Your task to perform on an android device: move an email to a new category in the gmail app Image 0: 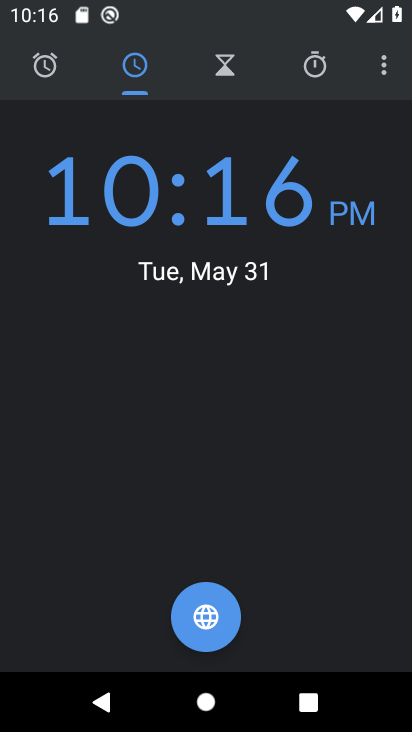
Step 0: press home button
Your task to perform on an android device: move an email to a new category in the gmail app Image 1: 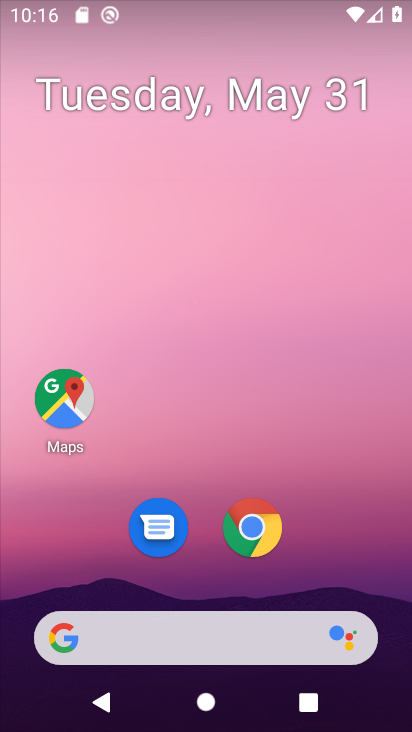
Step 1: drag from (303, 478) to (207, 82)
Your task to perform on an android device: move an email to a new category in the gmail app Image 2: 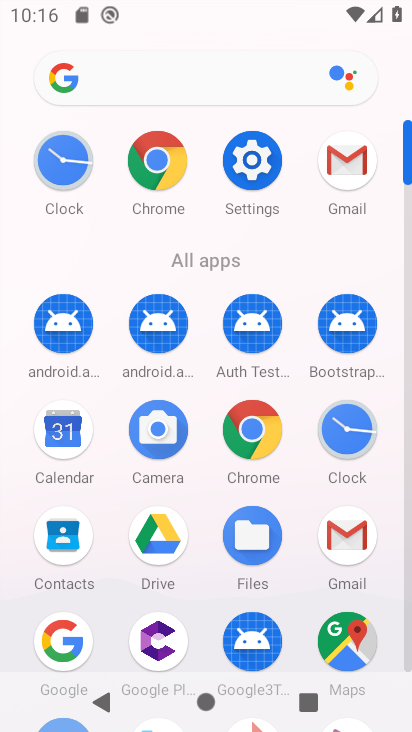
Step 2: click (353, 549)
Your task to perform on an android device: move an email to a new category in the gmail app Image 3: 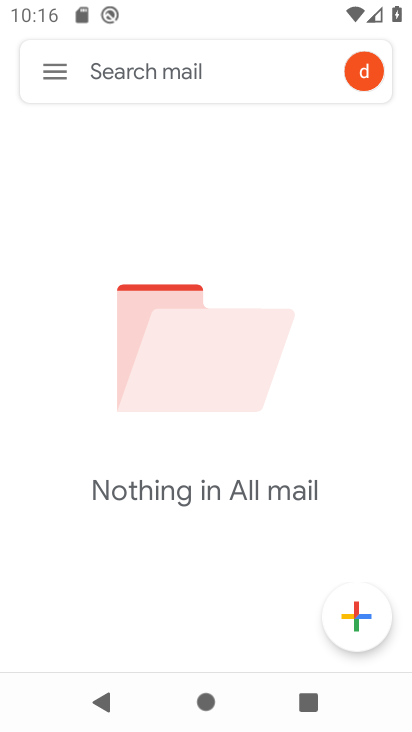
Step 3: click (55, 68)
Your task to perform on an android device: move an email to a new category in the gmail app Image 4: 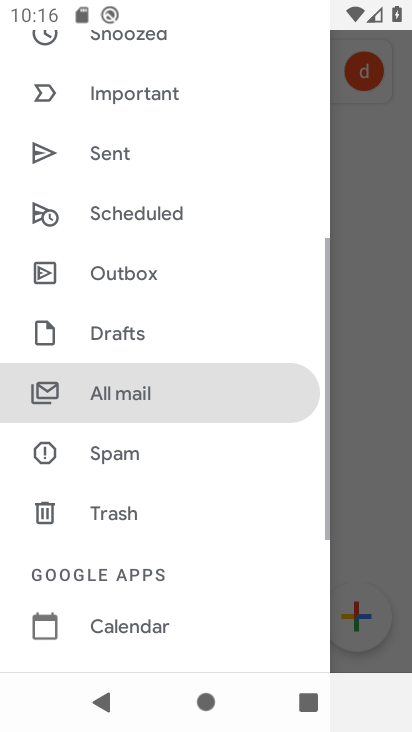
Step 4: click (178, 401)
Your task to perform on an android device: move an email to a new category in the gmail app Image 5: 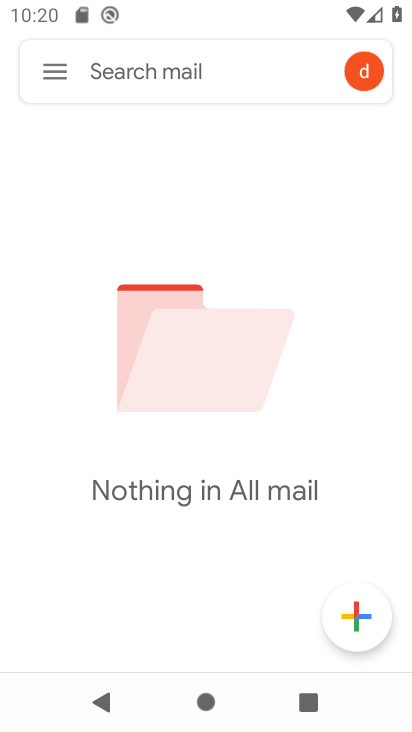
Step 5: task complete